Your task to perform on an android device: uninstall "Google Home" Image 0: 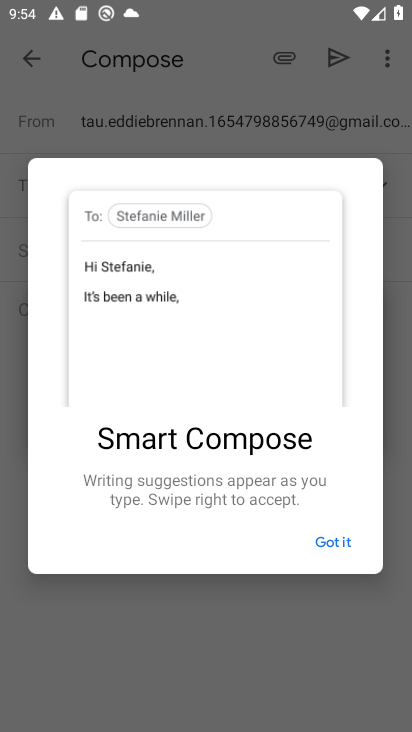
Step 0: press home button
Your task to perform on an android device: uninstall "Google Home" Image 1: 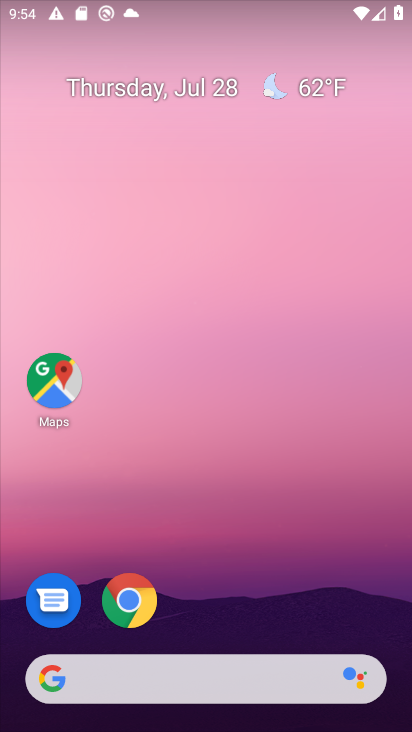
Step 1: drag from (267, 606) to (230, 3)
Your task to perform on an android device: uninstall "Google Home" Image 2: 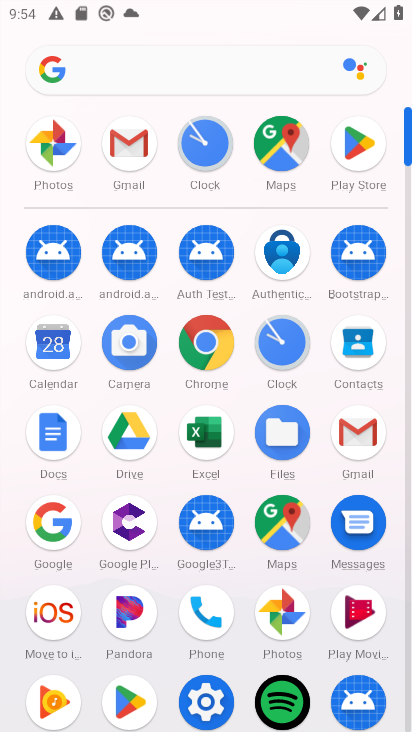
Step 2: click (350, 152)
Your task to perform on an android device: uninstall "Google Home" Image 3: 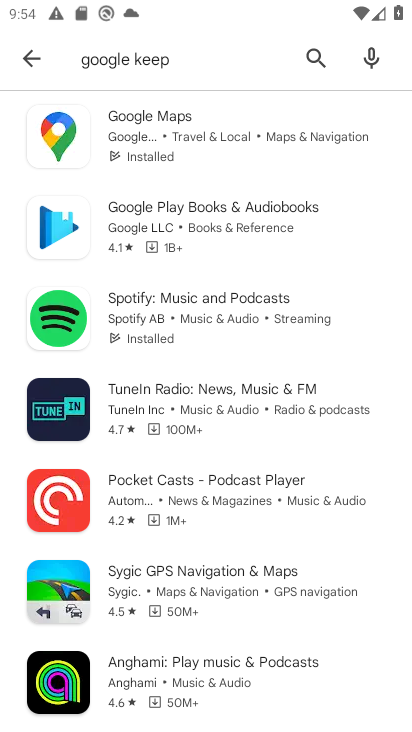
Step 3: click (324, 54)
Your task to perform on an android device: uninstall "Google Home" Image 4: 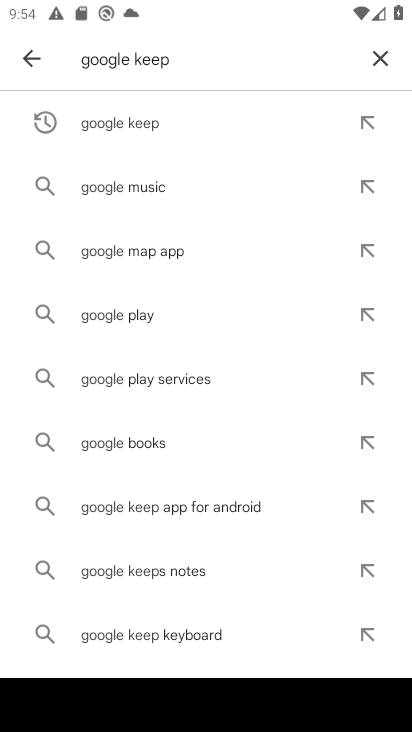
Step 4: click (371, 59)
Your task to perform on an android device: uninstall "Google Home" Image 5: 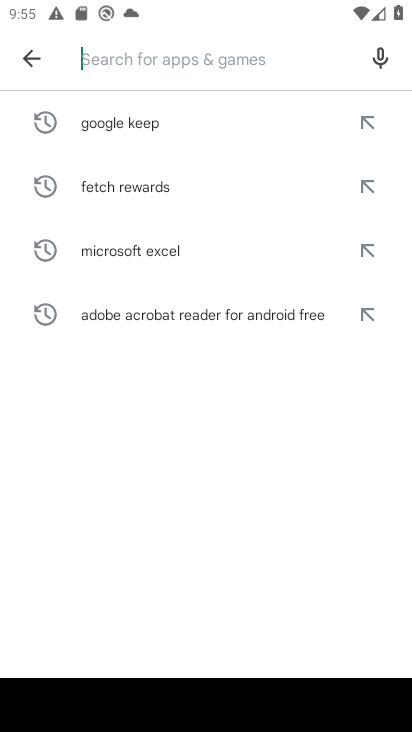
Step 5: type "Google Home"
Your task to perform on an android device: uninstall "Google Home" Image 6: 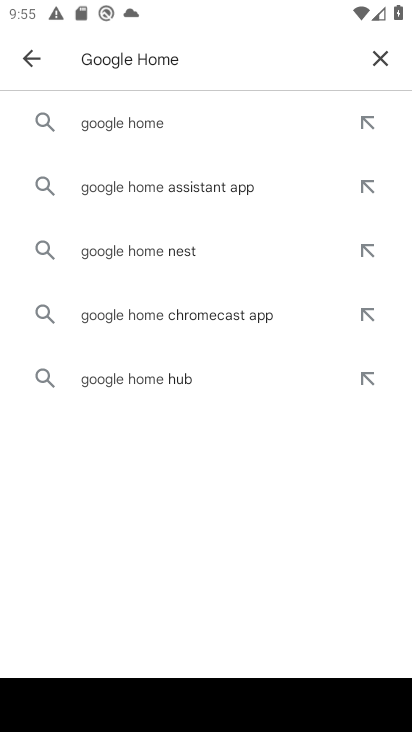
Step 6: click (160, 131)
Your task to perform on an android device: uninstall "Google Home" Image 7: 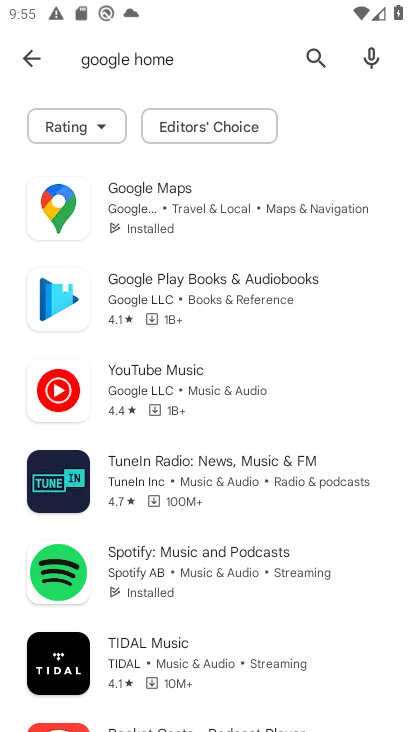
Step 7: task complete